Your task to perform on an android device: Open the web browser Image 0: 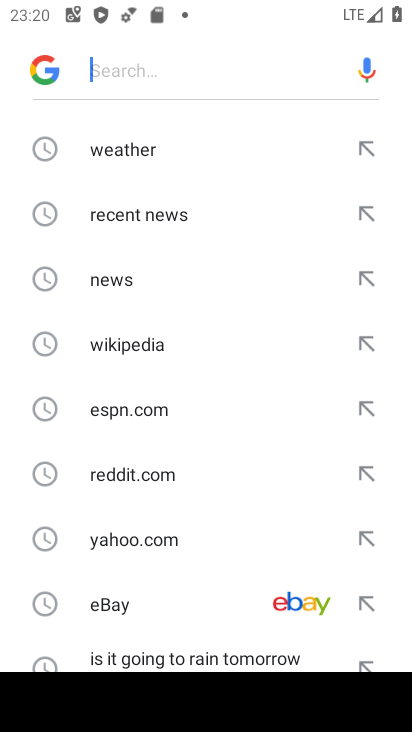
Step 0: press home button
Your task to perform on an android device: Open the web browser Image 1: 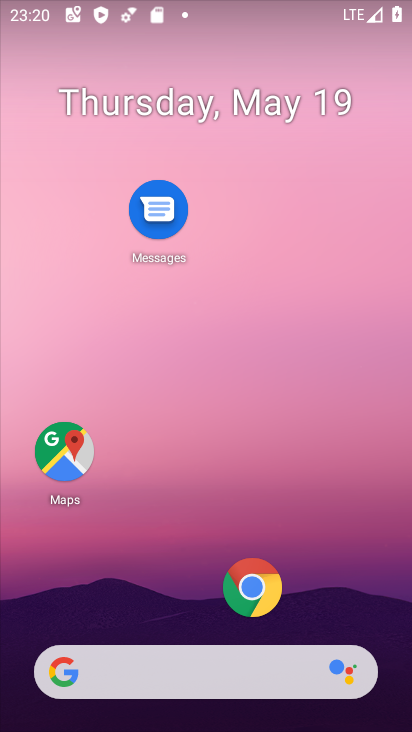
Step 1: click (162, 660)
Your task to perform on an android device: Open the web browser Image 2: 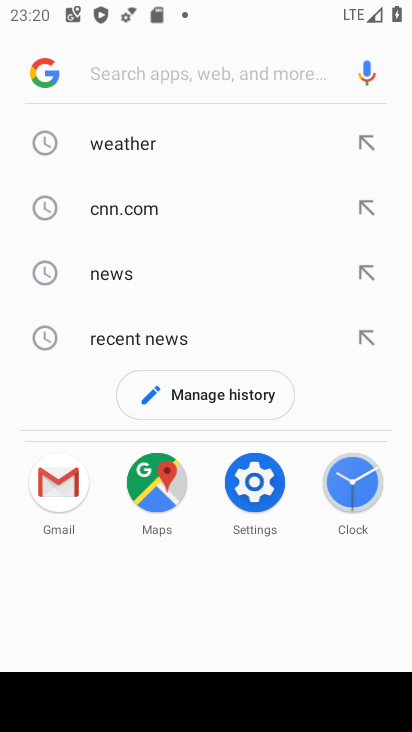
Step 2: task complete